Your task to perform on an android device: turn on bluetooth scan Image 0: 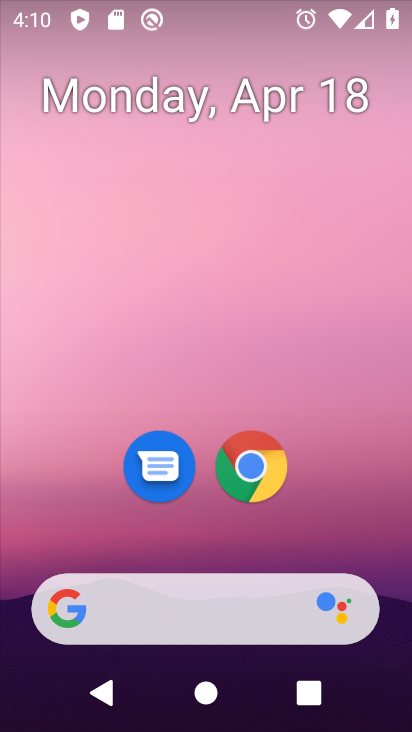
Step 0: drag from (347, 518) to (186, 0)
Your task to perform on an android device: turn on bluetooth scan Image 1: 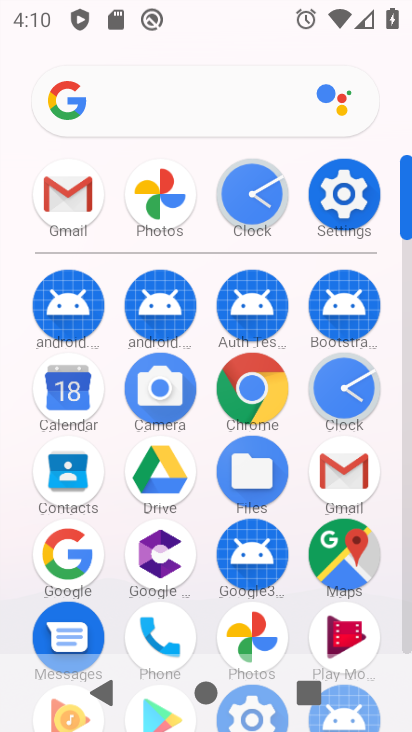
Step 1: click (344, 191)
Your task to perform on an android device: turn on bluetooth scan Image 2: 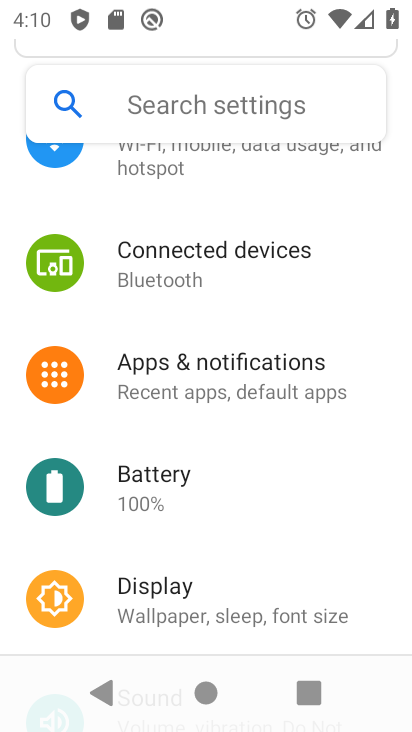
Step 2: drag from (325, 485) to (342, 153)
Your task to perform on an android device: turn on bluetooth scan Image 3: 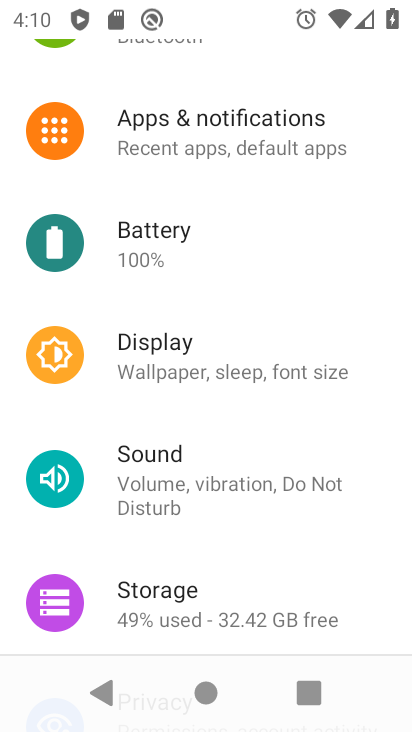
Step 3: drag from (297, 523) to (301, 192)
Your task to perform on an android device: turn on bluetooth scan Image 4: 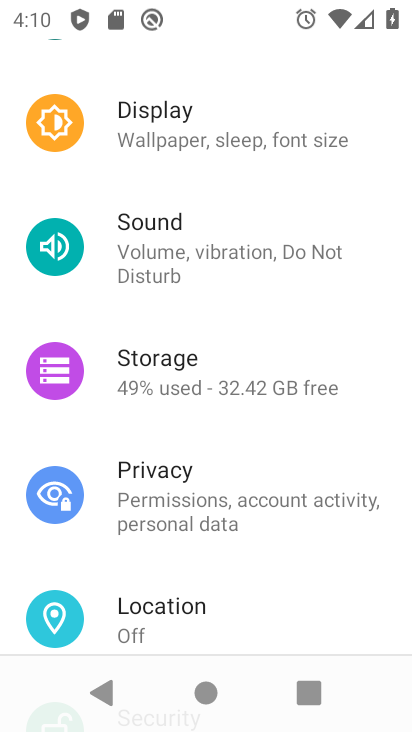
Step 4: drag from (234, 161) to (285, 126)
Your task to perform on an android device: turn on bluetooth scan Image 5: 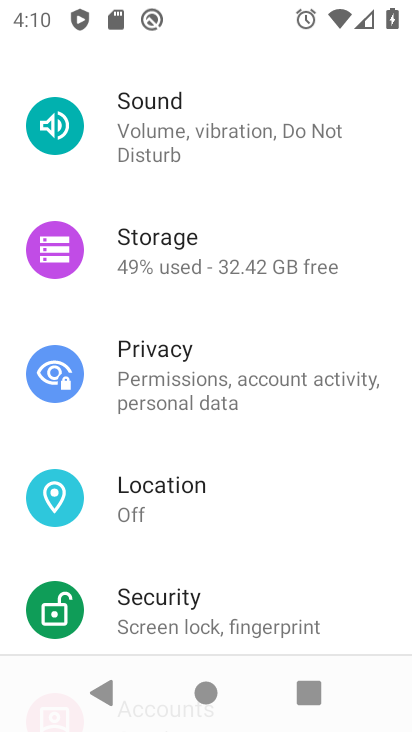
Step 5: drag from (278, 382) to (282, 118)
Your task to perform on an android device: turn on bluetooth scan Image 6: 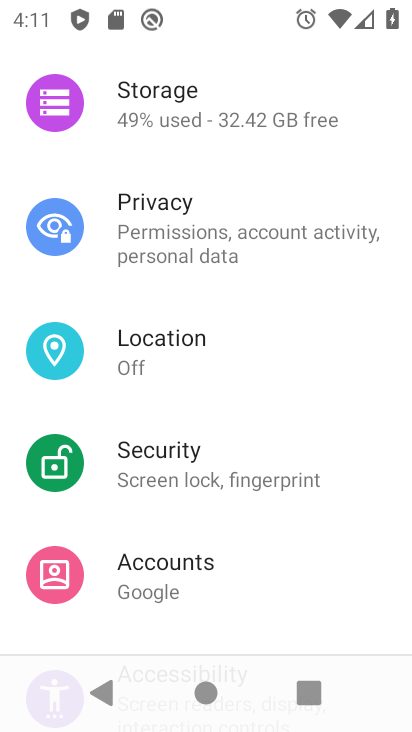
Step 6: drag from (251, 434) to (245, 125)
Your task to perform on an android device: turn on bluetooth scan Image 7: 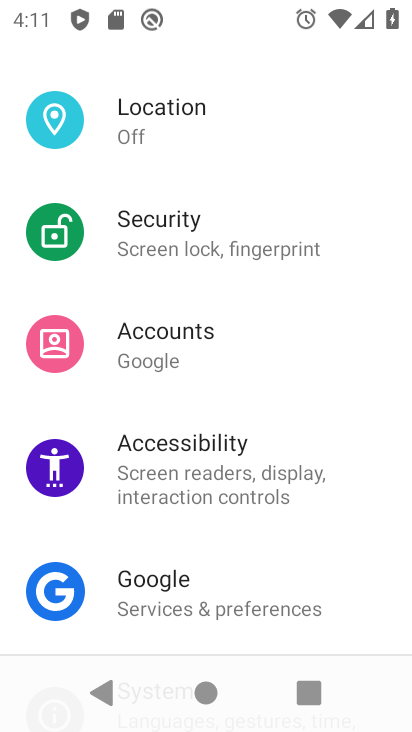
Step 7: drag from (273, 297) to (261, 121)
Your task to perform on an android device: turn on bluetooth scan Image 8: 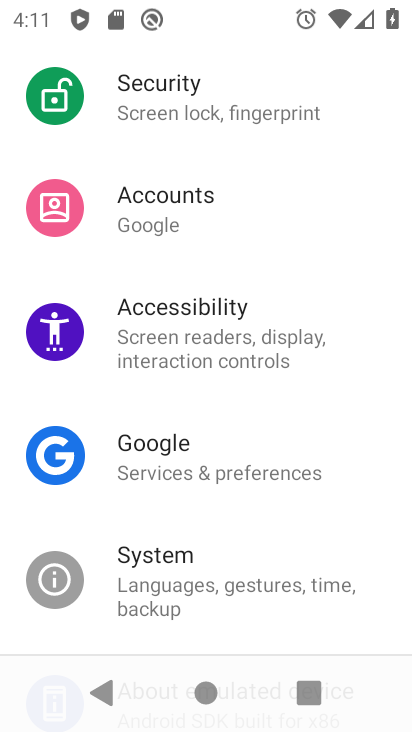
Step 8: drag from (277, 207) to (280, 444)
Your task to perform on an android device: turn on bluetooth scan Image 9: 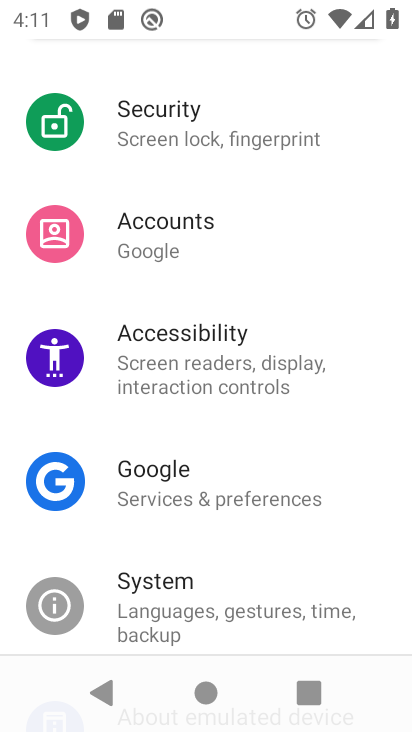
Step 9: drag from (214, 231) to (191, 477)
Your task to perform on an android device: turn on bluetooth scan Image 10: 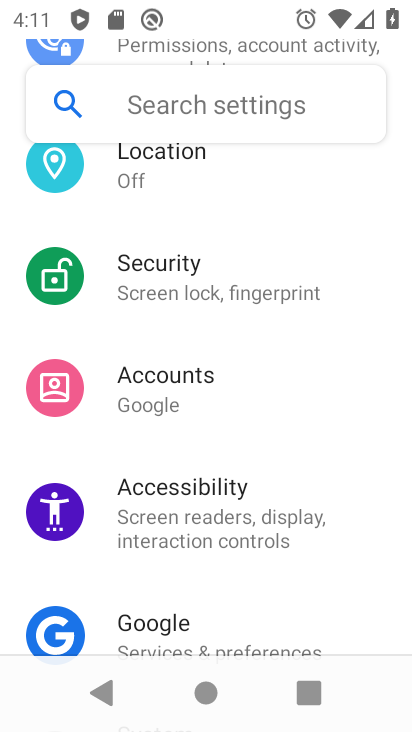
Step 10: click (214, 171)
Your task to perform on an android device: turn on bluetooth scan Image 11: 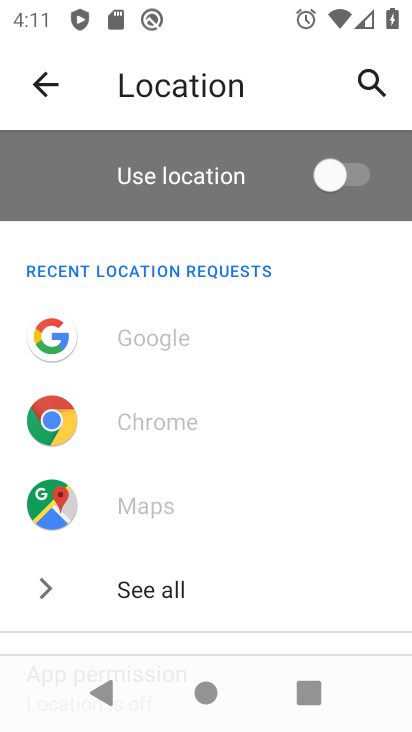
Step 11: drag from (318, 482) to (276, 182)
Your task to perform on an android device: turn on bluetooth scan Image 12: 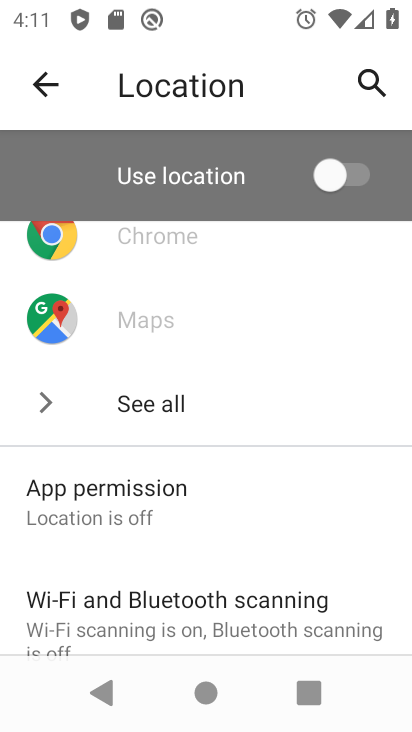
Step 12: click (239, 618)
Your task to perform on an android device: turn on bluetooth scan Image 13: 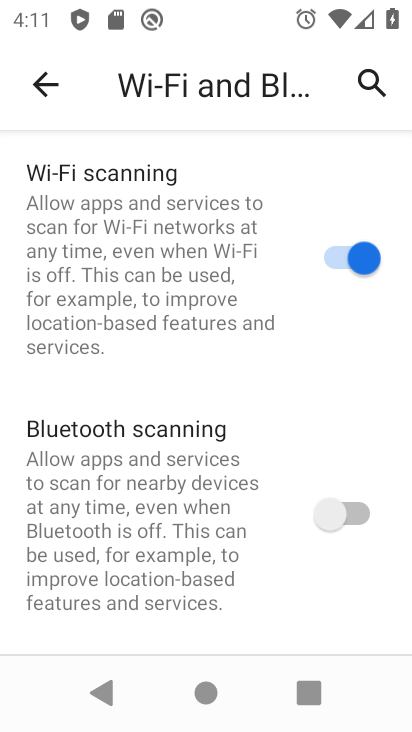
Step 13: click (365, 518)
Your task to perform on an android device: turn on bluetooth scan Image 14: 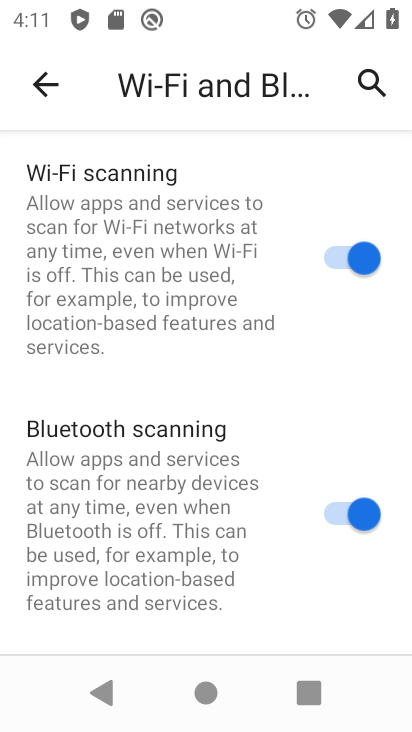
Step 14: task complete